Your task to perform on an android device: turn notification dots on Image 0: 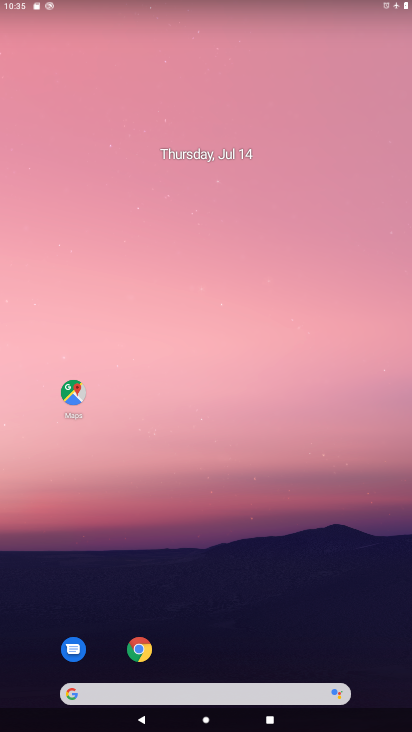
Step 0: drag from (172, 695) to (411, 63)
Your task to perform on an android device: turn notification dots on Image 1: 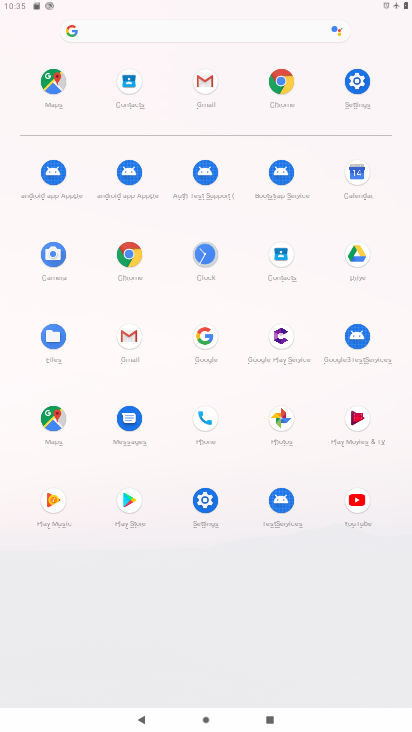
Step 1: click (359, 76)
Your task to perform on an android device: turn notification dots on Image 2: 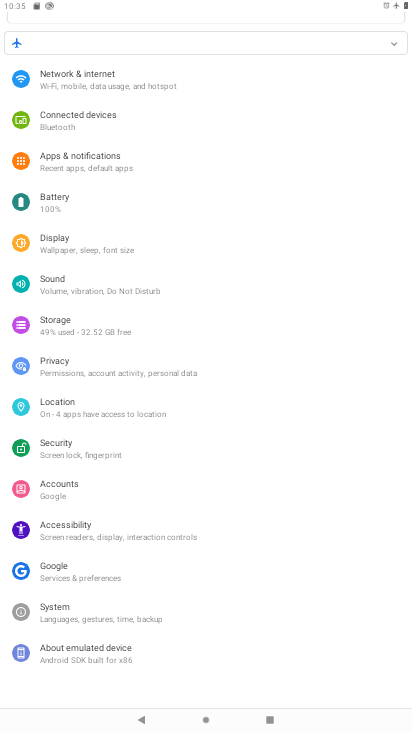
Step 2: click (132, 160)
Your task to perform on an android device: turn notification dots on Image 3: 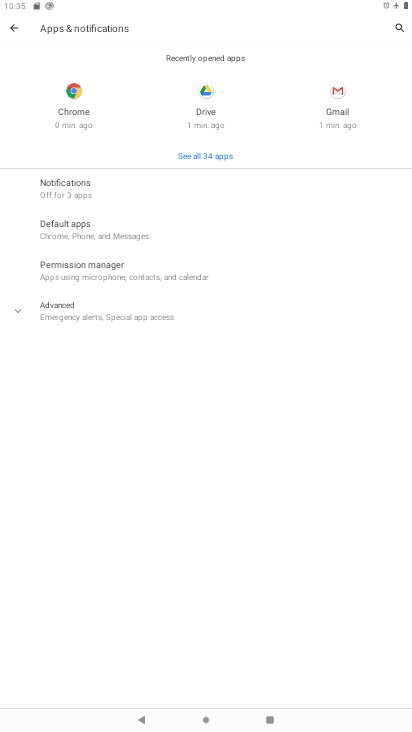
Step 3: click (143, 312)
Your task to perform on an android device: turn notification dots on Image 4: 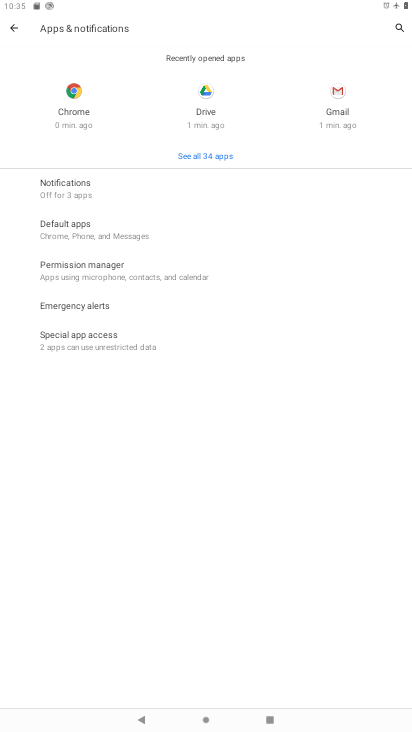
Step 4: click (129, 177)
Your task to perform on an android device: turn notification dots on Image 5: 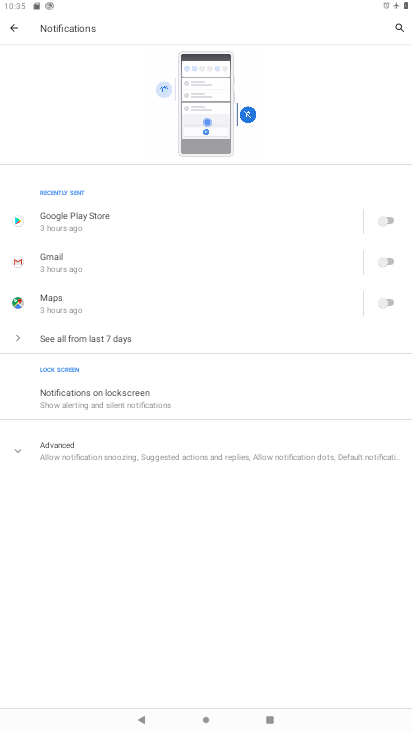
Step 5: click (185, 447)
Your task to perform on an android device: turn notification dots on Image 6: 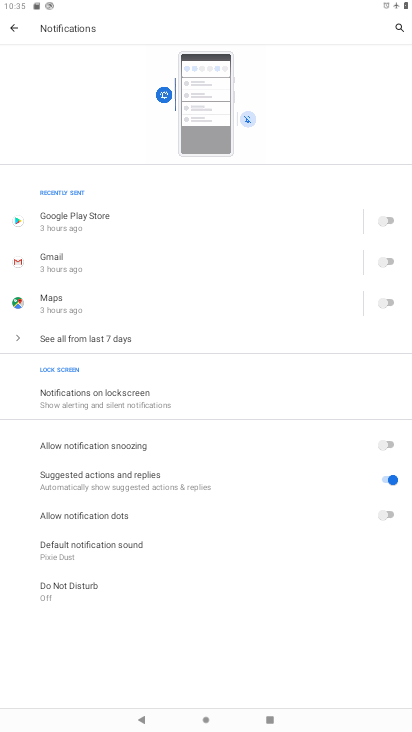
Step 6: click (388, 515)
Your task to perform on an android device: turn notification dots on Image 7: 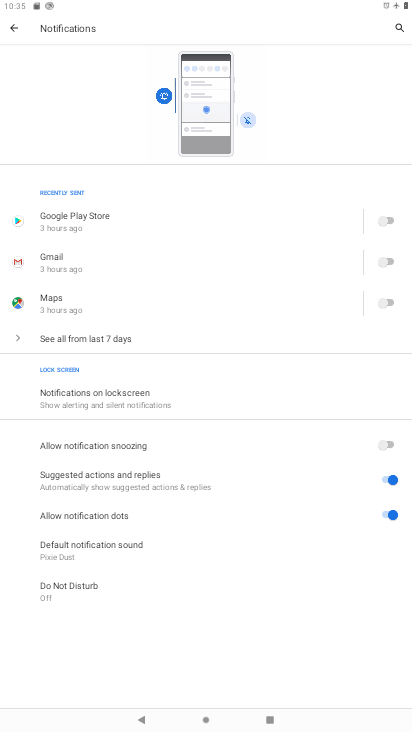
Step 7: task complete